Your task to perform on an android device: turn off sleep mode Image 0: 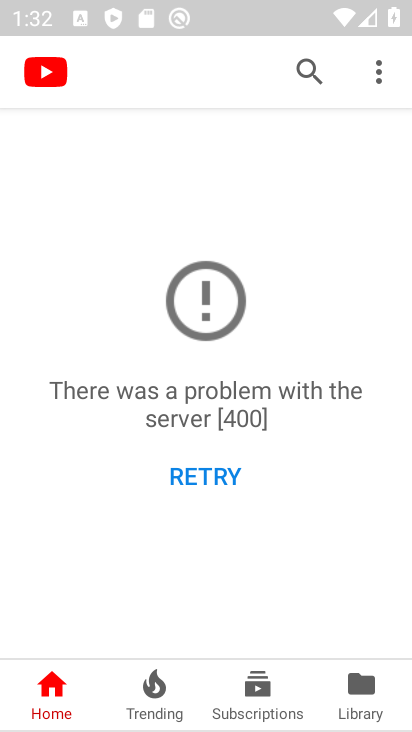
Step 0: press home button
Your task to perform on an android device: turn off sleep mode Image 1: 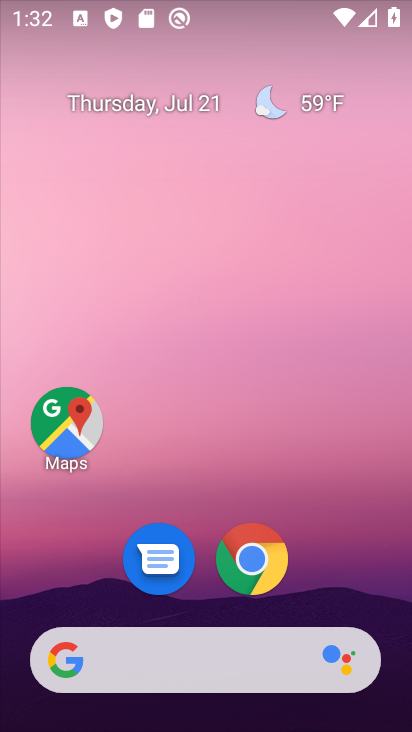
Step 1: drag from (185, 624) to (384, 71)
Your task to perform on an android device: turn off sleep mode Image 2: 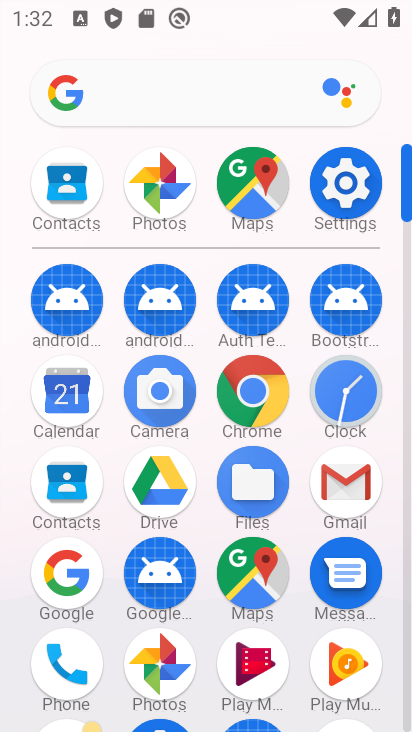
Step 2: click (363, 209)
Your task to perform on an android device: turn off sleep mode Image 3: 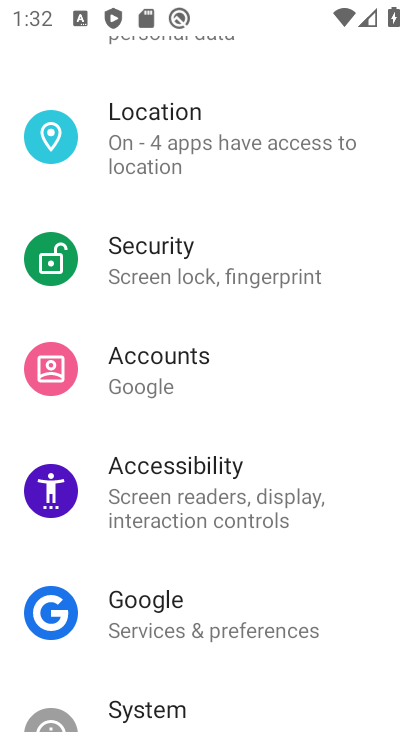
Step 3: drag from (168, 388) to (166, 688)
Your task to perform on an android device: turn off sleep mode Image 4: 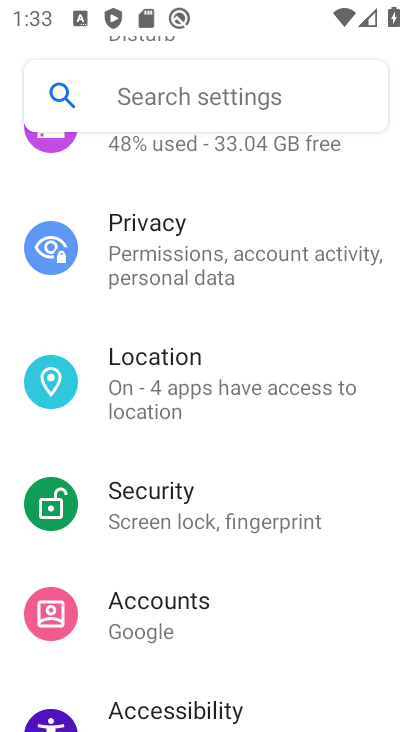
Step 4: drag from (213, 320) to (252, 705)
Your task to perform on an android device: turn off sleep mode Image 5: 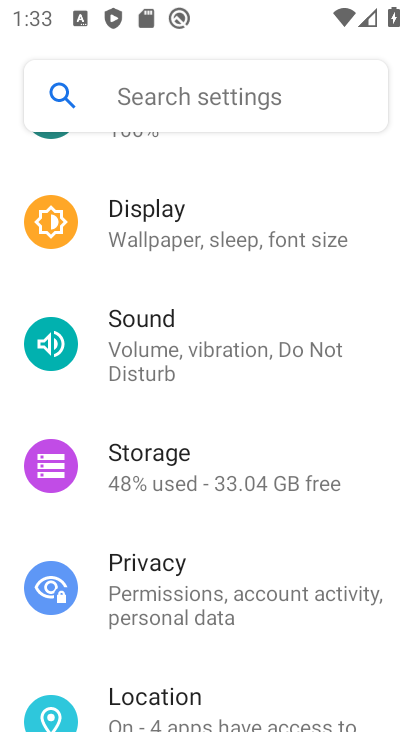
Step 5: click (175, 223)
Your task to perform on an android device: turn off sleep mode Image 6: 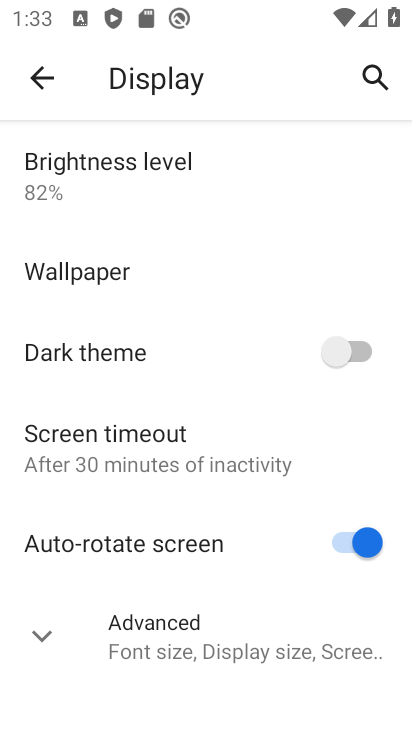
Step 6: click (210, 657)
Your task to perform on an android device: turn off sleep mode Image 7: 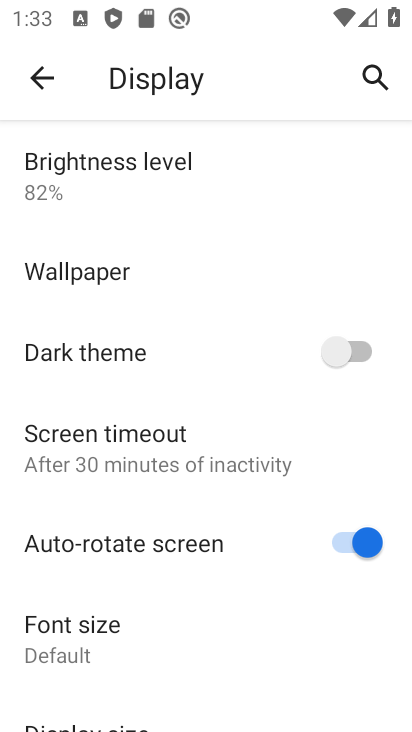
Step 7: task complete